Your task to perform on an android device: toggle show notifications on the lock screen Image 0: 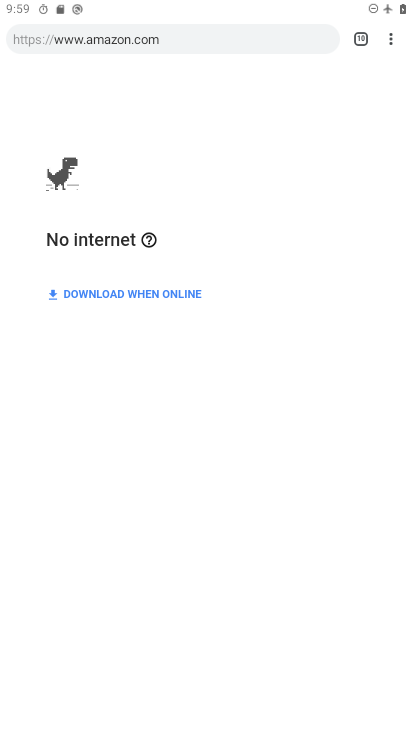
Step 0: click (386, 37)
Your task to perform on an android device: toggle show notifications on the lock screen Image 1: 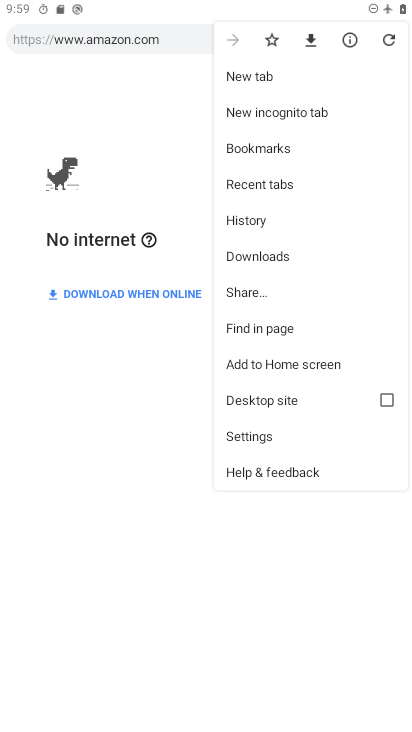
Step 1: press home button
Your task to perform on an android device: toggle show notifications on the lock screen Image 2: 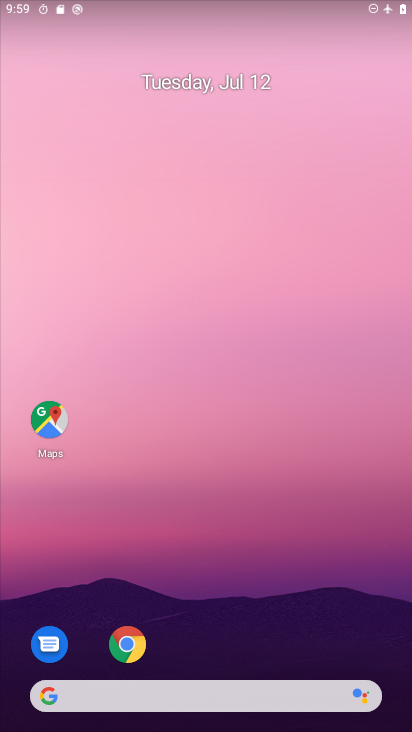
Step 2: drag from (221, 626) to (205, 136)
Your task to perform on an android device: toggle show notifications on the lock screen Image 3: 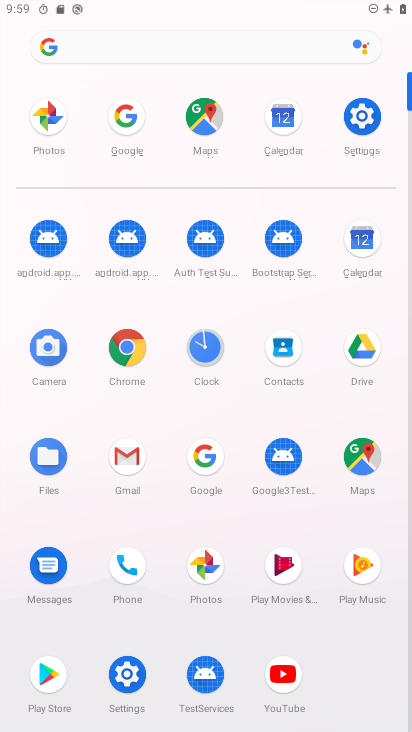
Step 3: click (351, 122)
Your task to perform on an android device: toggle show notifications on the lock screen Image 4: 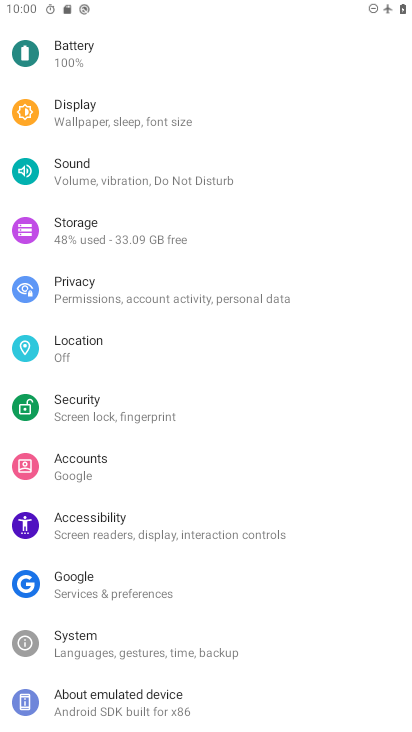
Step 4: drag from (186, 191) to (186, 556)
Your task to perform on an android device: toggle show notifications on the lock screen Image 5: 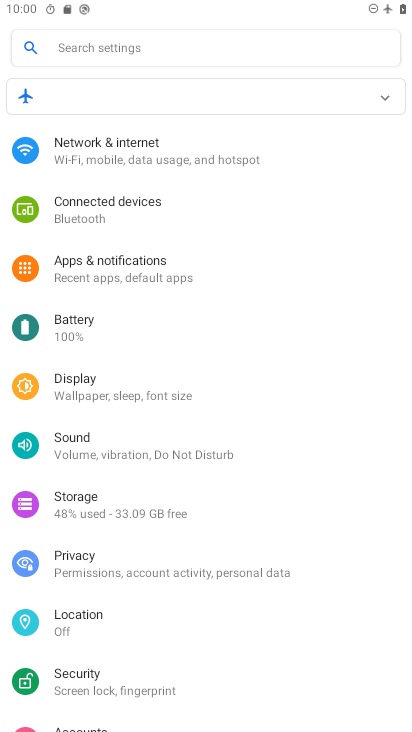
Step 5: click (121, 269)
Your task to perform on an android device: toggle show notifications on the lock screen Image 6: 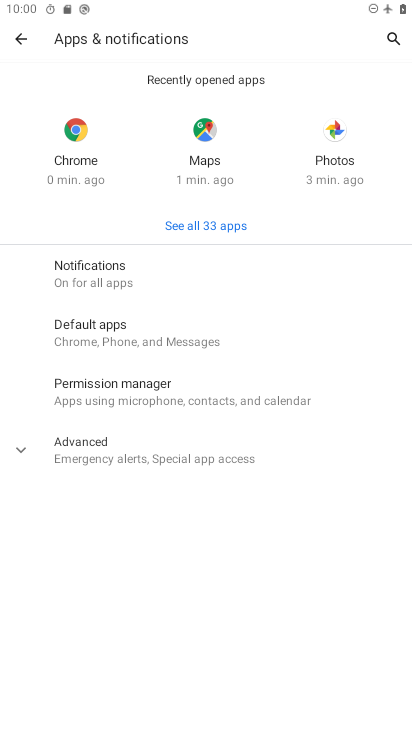
Step 6: click (121, 269)
Your task to perform on an android device: toggle show notifications on the lock screen Image 7: 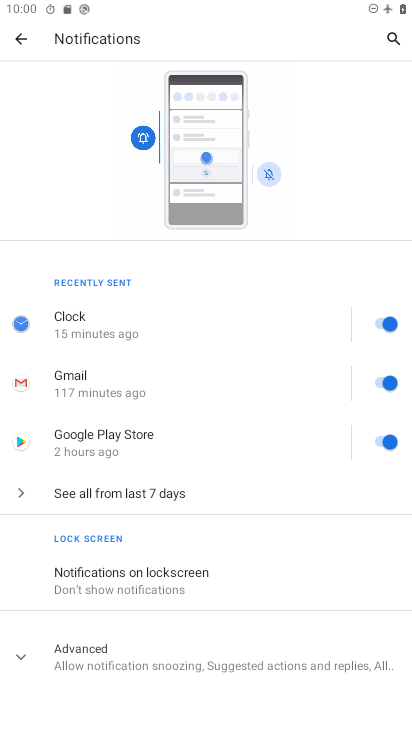
Step 7: click (144, 576)
Your task to perform on an android device: toggle show notifications on the lock screen Image 8: 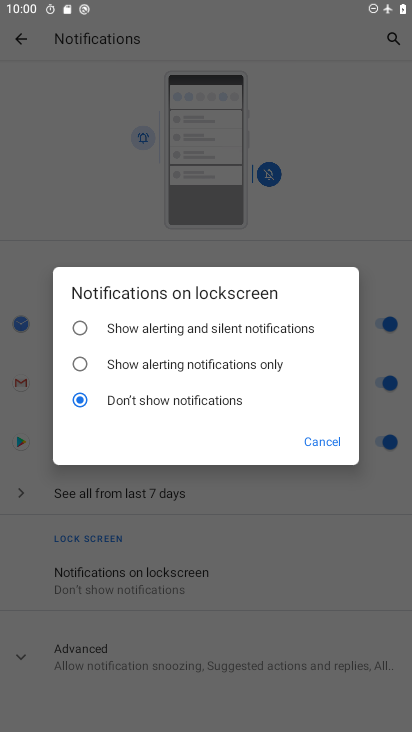
Step 8: click (141, 339)
Your task to perform on an android device: toggle show notifications on the lock screen Image 9: 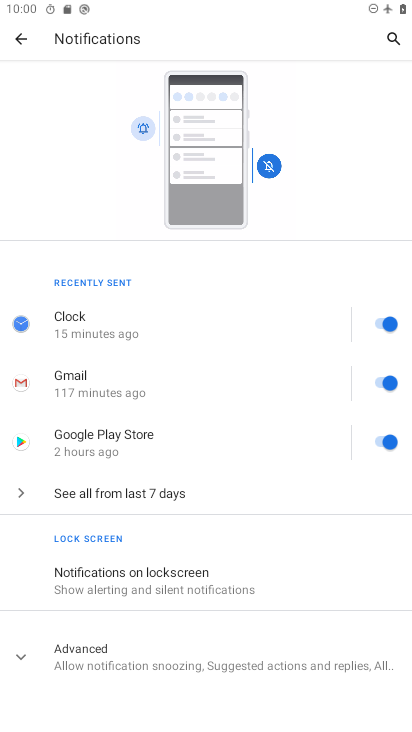
Step 9: task complete